Your task to perform on an android device: snooze an email in the gmail app Image 0: 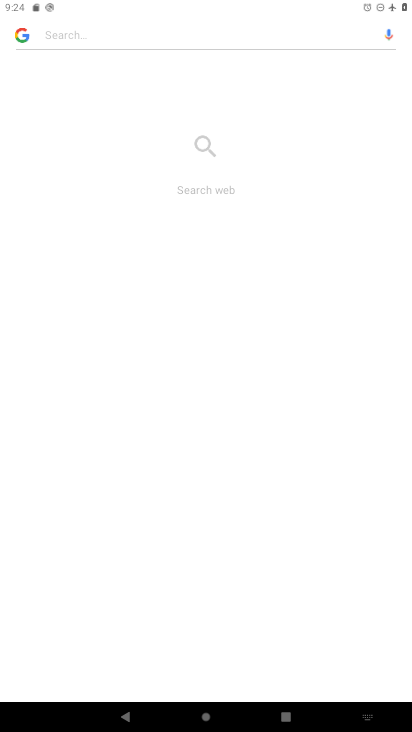
Step 0: press back button
Your task to perform on an android device: snooze an email in the gmail app Image 1: 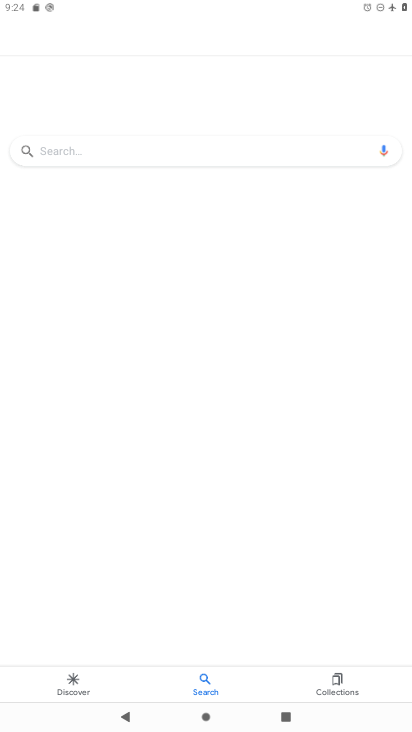
Step 1: press back button
Your task to perform on an android device: snooze an email in the gmail app Image 2: 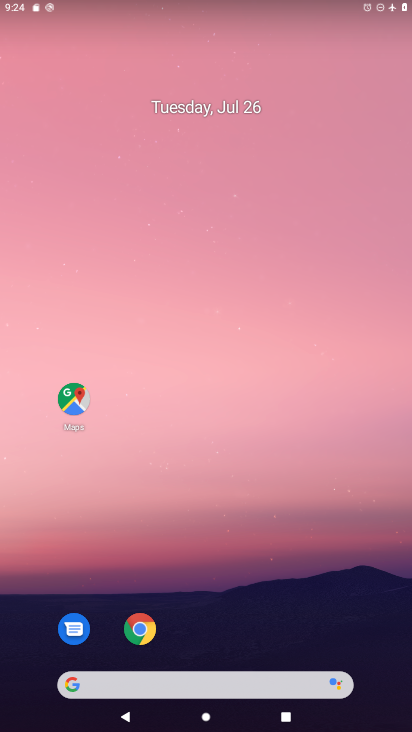
Step 2: drag from (198, 664) to (212, 126)
Your task to perform on an android device: snooze an email in the gmail app Image 3: 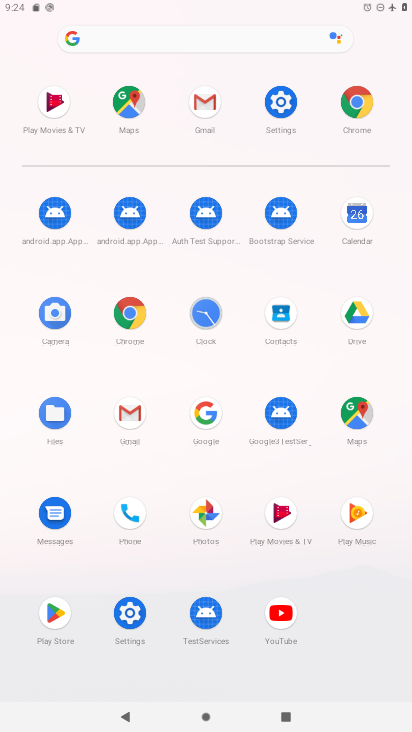
Step 3: click (131, 418)
Your task to perform on an android device: snooze an email in the gmail app Image 4: 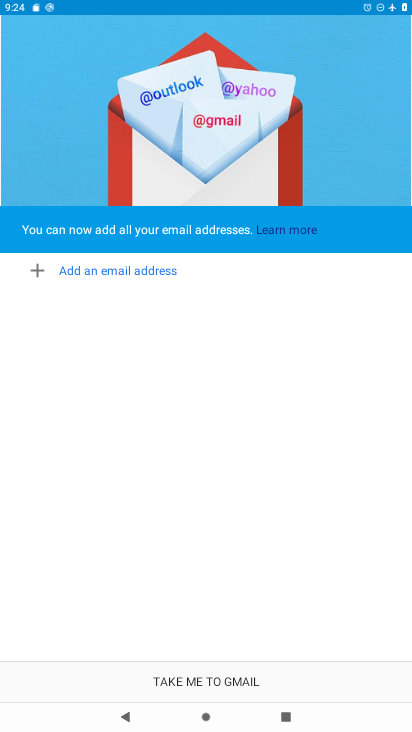
Step 4: click (228, 670)
Your task to perform on an android device: snooze an email in the gmail app Image 5: 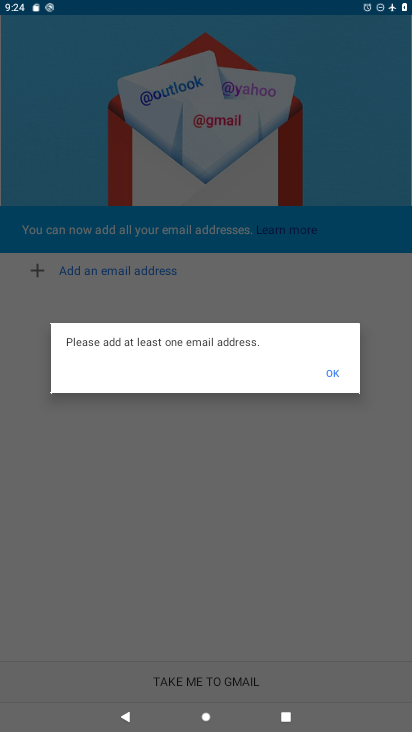
Step 5: click (336, 372)
Your task to perform on an android device: snooze an email in the gmail app Image 6: 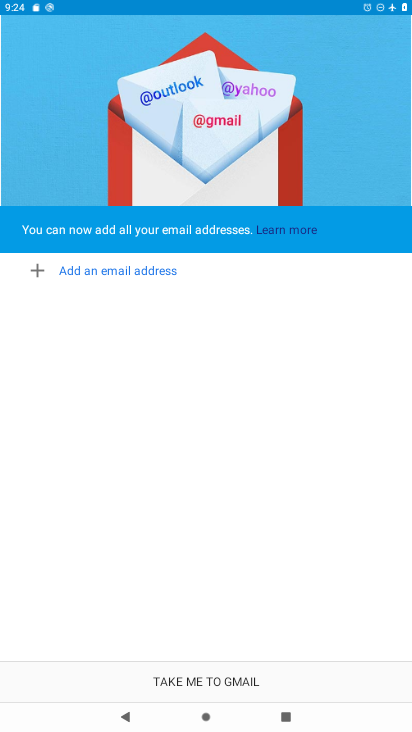
Step 6: task complete